Your task to perform on an android device: find snoozed emails in the gmail app Image 0: 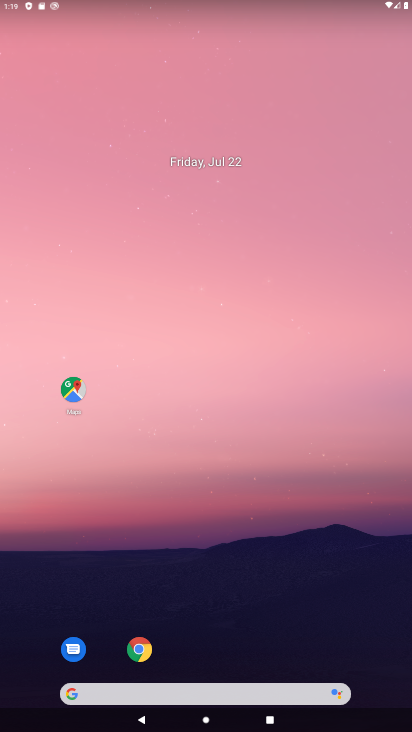
Step 0: drag from (299, 604) to (181, 120)
Your task to perform on an android device: find snoozed emails in the gmail app Image 1: 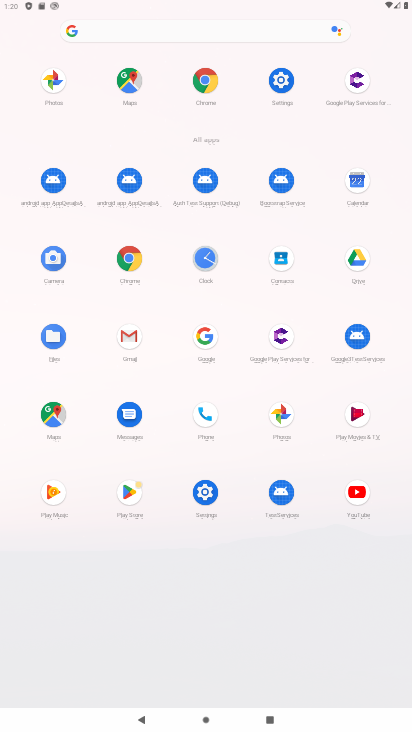
Step 1: click (134, 339)
Your task to perform on an android device: find snoozed emails in the gmail app Image 2: 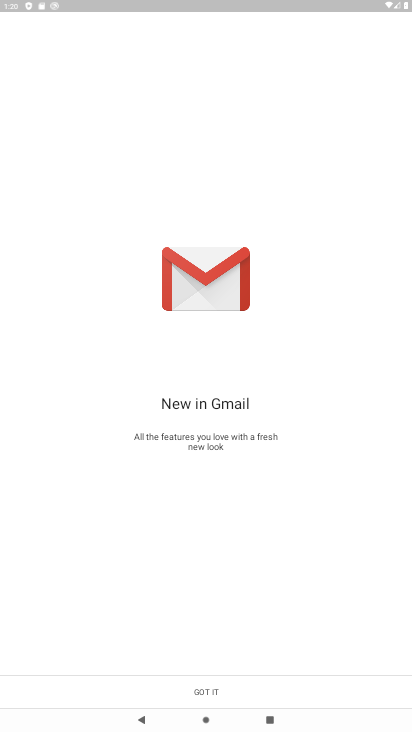
Step 2: click (213, 697)
Your task to perform on an android device: find snoozed emails in the gmail app Image 3: 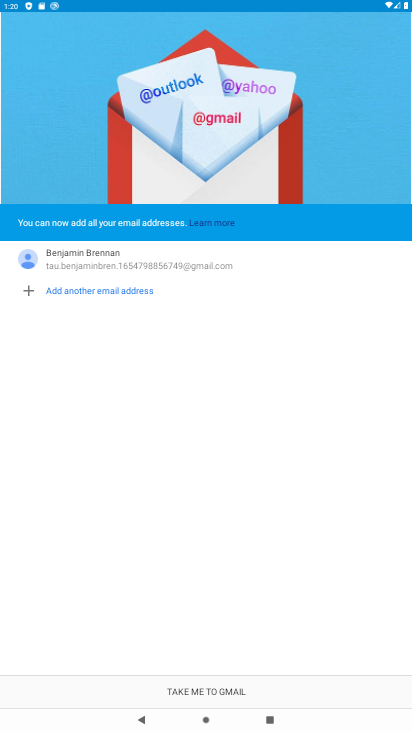
Step 3: click (213, 697)
Your task to perform on an android device: find snoozed emails in the gmail app Image 4: 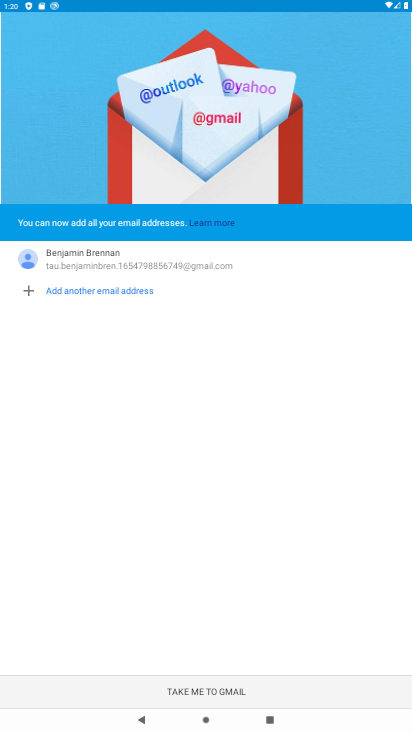
Step 4: click (240, 689)
Your task to perform on an android device: find snoozed emails in the gmail app Image 5: 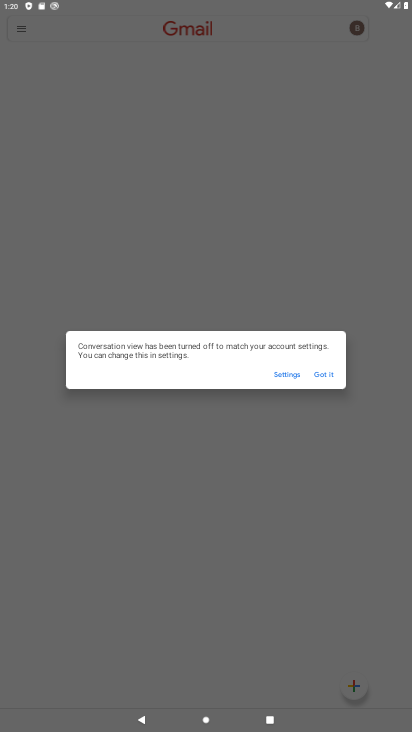
Step 5: click (333, 375)
Your task to perform on an android device: find snoozed emails in the gmail app Image 6: 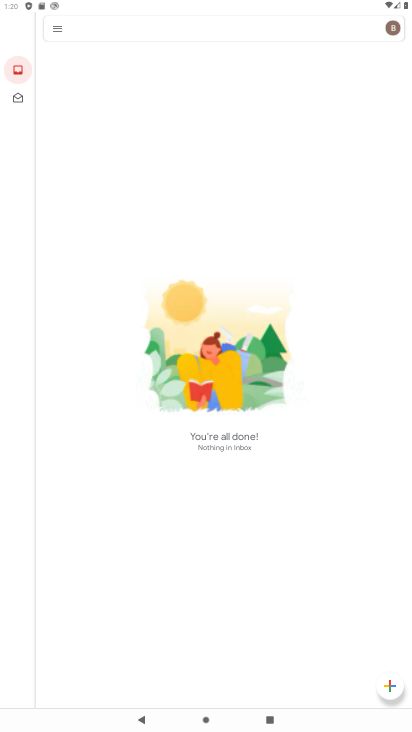
Step 6: click (61, 32)
Your task to perform on an android device: find snoozed emails in the gmail app Image 7: 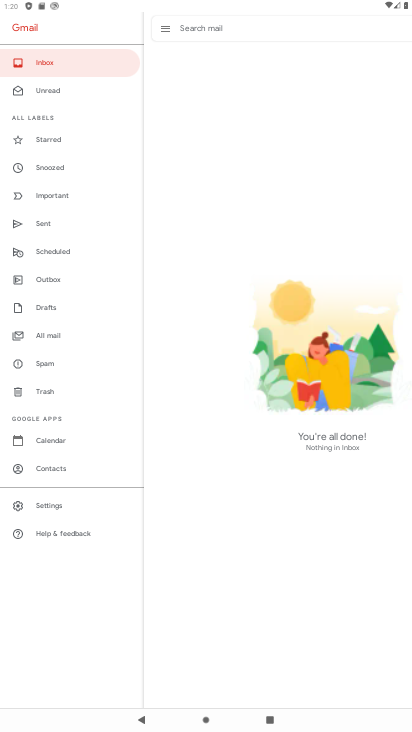
Step 7: click (73, 165)
Your task to perform on an android device: find snoozed emails in the gmail app Image 8: 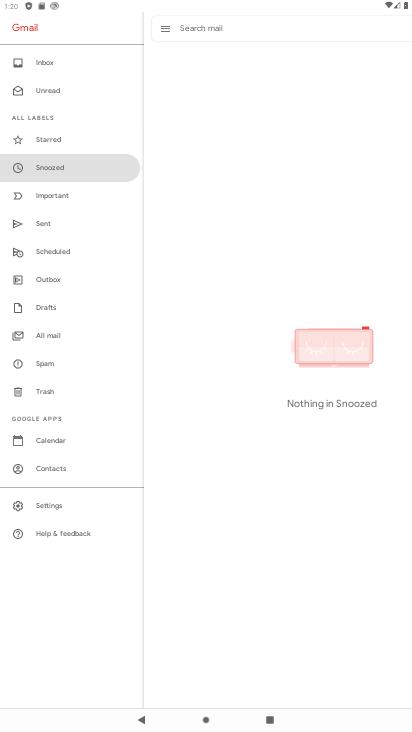
Step 8: task complete